Your task to perform on an android device: Go to notification settings Image 0: 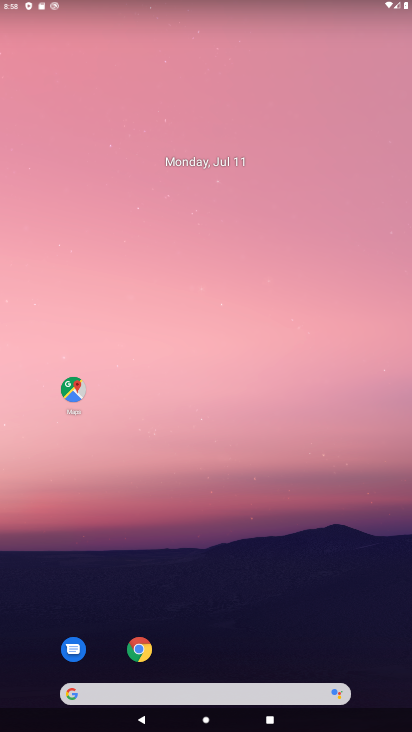
Step 0: drag from (193, 665) to (257, 119)
Your task to perform on an android device: Go to notification settings Image 1: 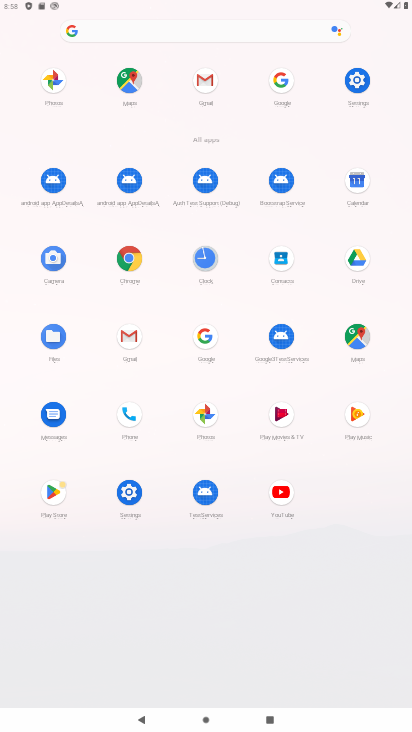
Step 1: click (132, 499)
Your task to perform on an android device: Go to notification settings Image 2: 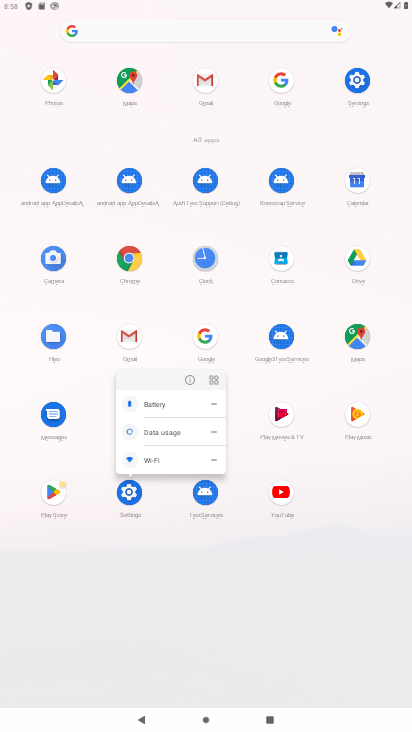
Step 2: click (131, 495)
Your task to perform on an android device: Go to notification settings Image 3: 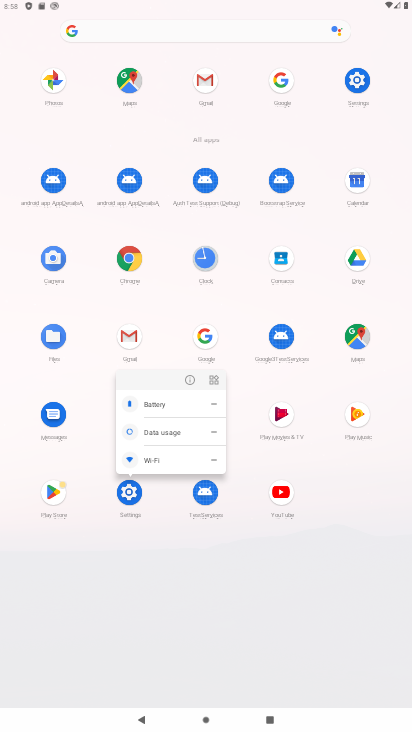
Step 3: click (131, 491)
Your task to perform on an android device: Go to notification settings Image 4: 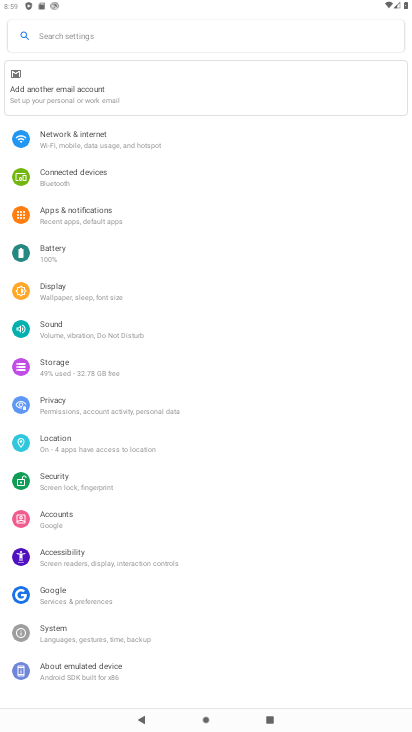
Step 4: click (127, 215)
Your task to perform on an android device: Go to notification settings Image 5: 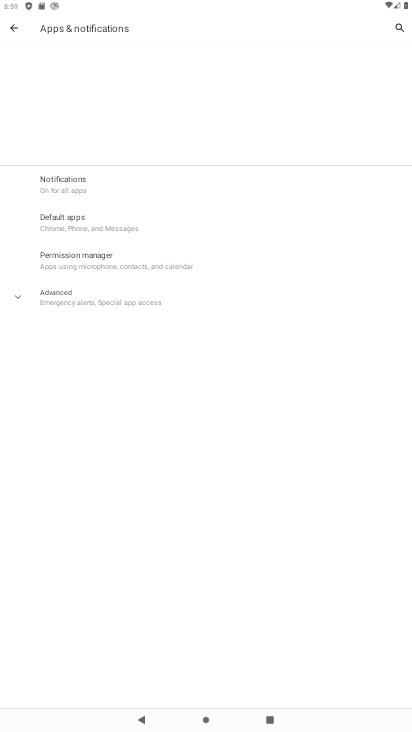
Step 5: click (139, 185)
Your task to perform on an android device: Go to notification settings Image 6: 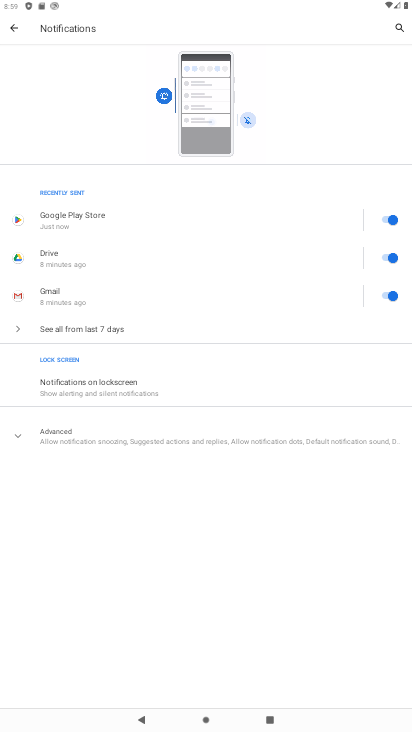
Step 6: task complete